Your task to perform on an android device: What is the recent news? Image 0: 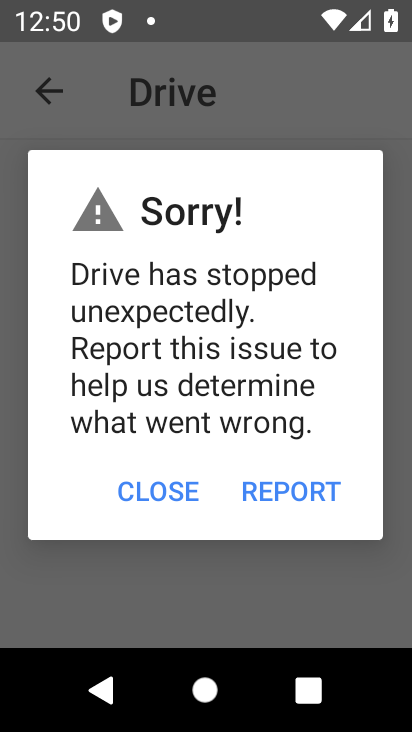
Step 0: press home button
Your task to perform on an android device: What is the recent news? Image 1: 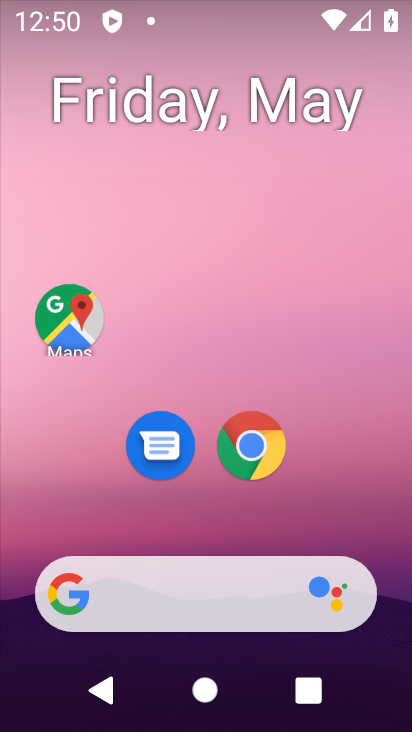
Step 1: task complete